Your task to perform on an android device: Open calendar and show me the third week of next month Image 0: 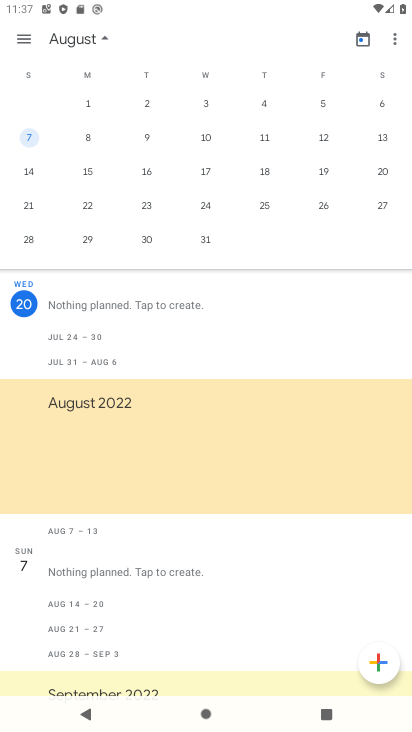
Step 0: click (354, 619)
Your task to perform on an android device: Open calendar and show me the third week of next month Image 1: 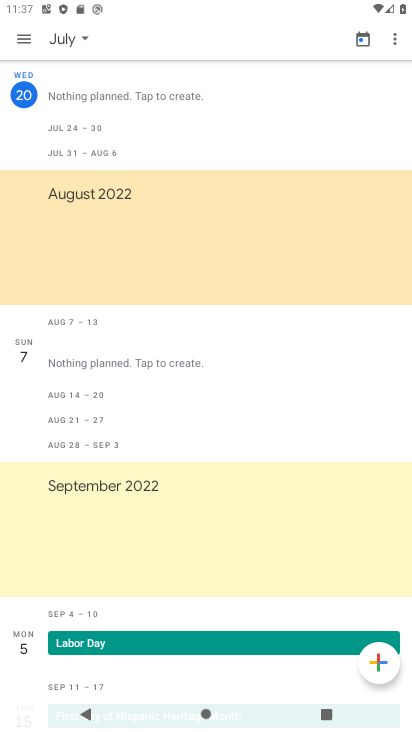
Step 1: press home button
Your task to perform on an android device: Open calendar and show me the third week of next month Image 2: 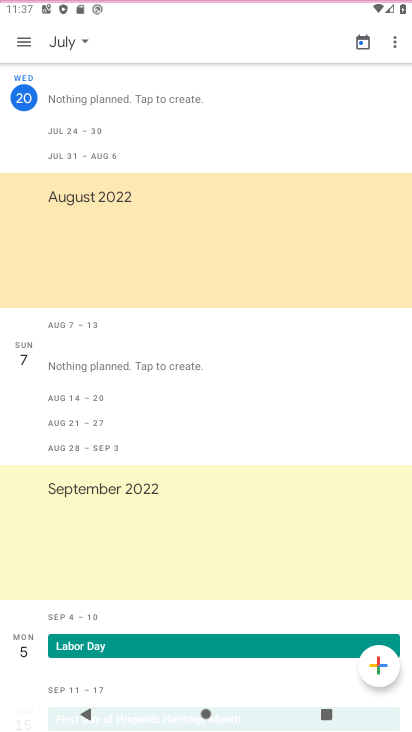
Step 2: drag from (351, 616) to (171, 48)
Your task to perform on an android device: Open calendar and show me the third week of next month Image 3: 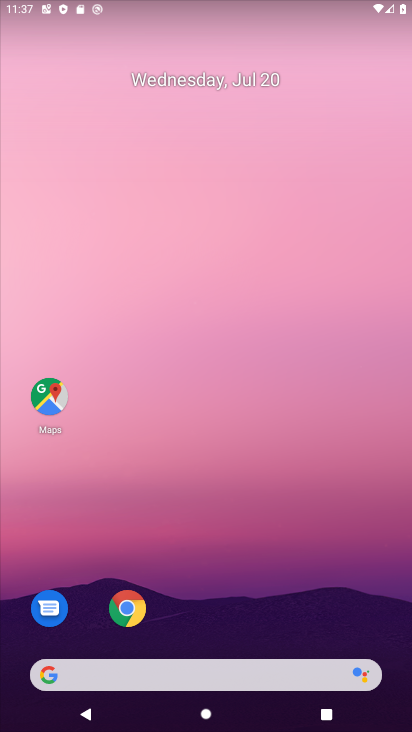
Step 3: drag from (319, 612) to (109, 43)
Your task to perform on an android device: Open calendar and show me the third week of next month Image 4: 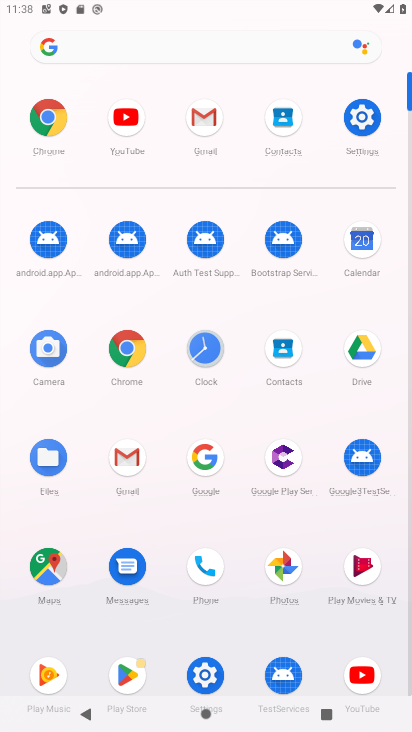
Step 4: click (351, 244)
Your task to perform on an android device: Open calendar and show me the third week of next month Image 5: 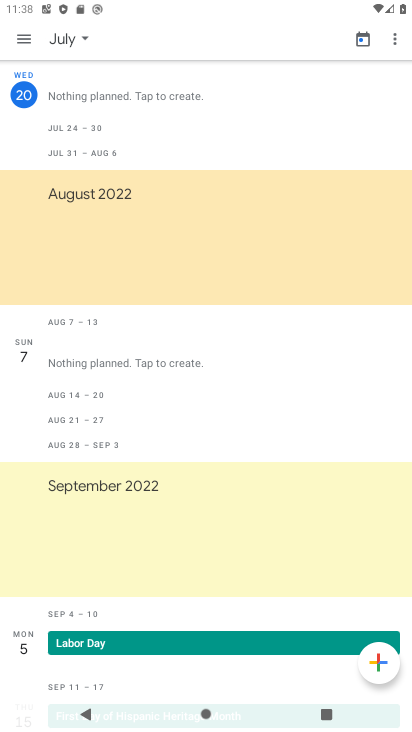
Step 5: click (69, 41)
Your task to perform on an android device: Open calendar and show me the third week of next month Image 6: 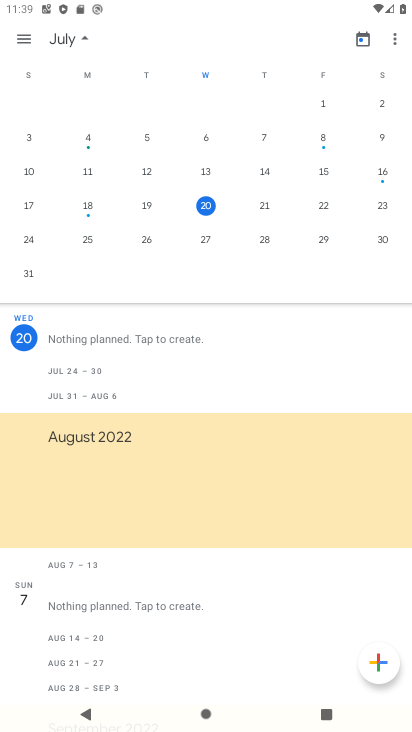
Step 6: drag from (374, 156) to (20, 189)
Your task to perform on an android device: Open calendar and show me the third week of next month Image 7: 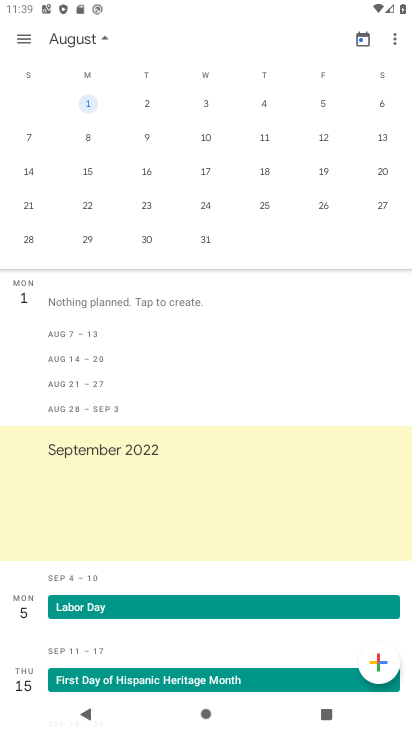
Step 7: drag from (330, 122) to (3, 139)
Your task to perform on an android device: Open calendar and show me the third week of next month Image 8: 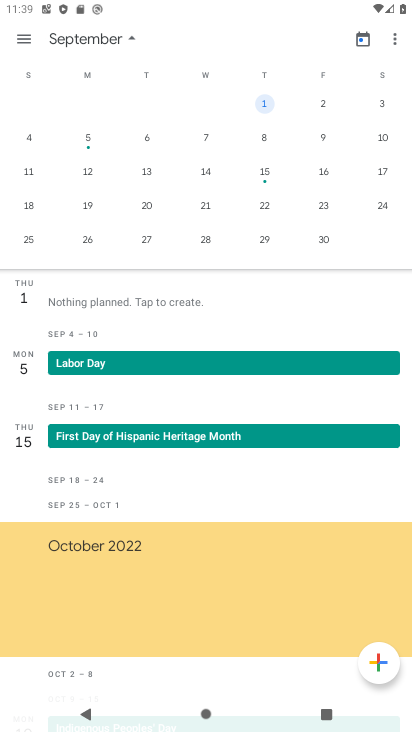
Step 8: drag from (316, 146) to (0, 183)
Your task to perform on an android device: Open calendar and show me the third week of next month Image 9: 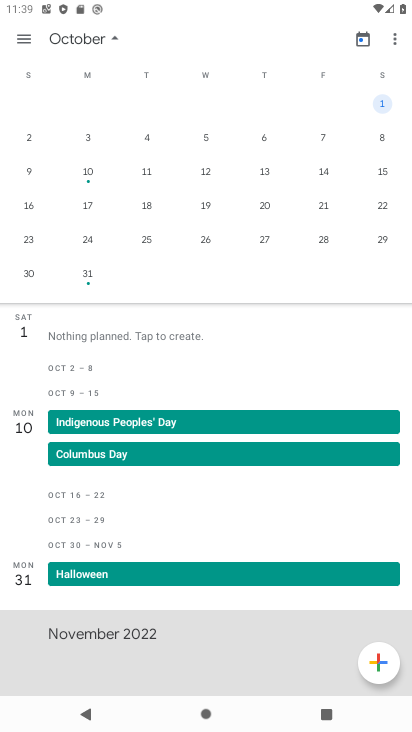
Step 9: click (26, 203)
Your task to perform on an android device: Open calendar and show me the third week of next month Image 10: 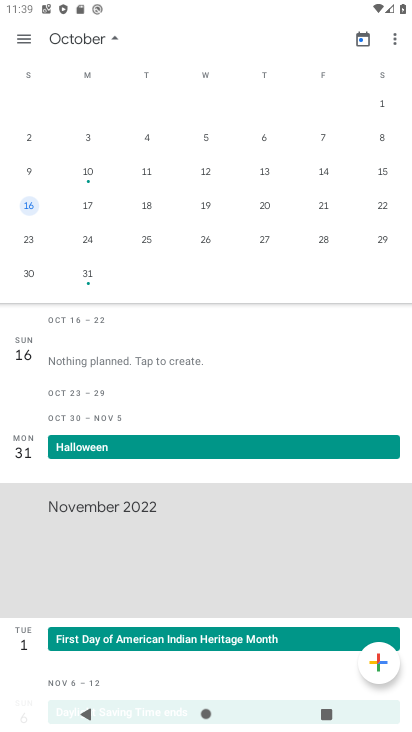
Step 10: task complete